Your task to perform on an android device: change keyboard looks Image 0: 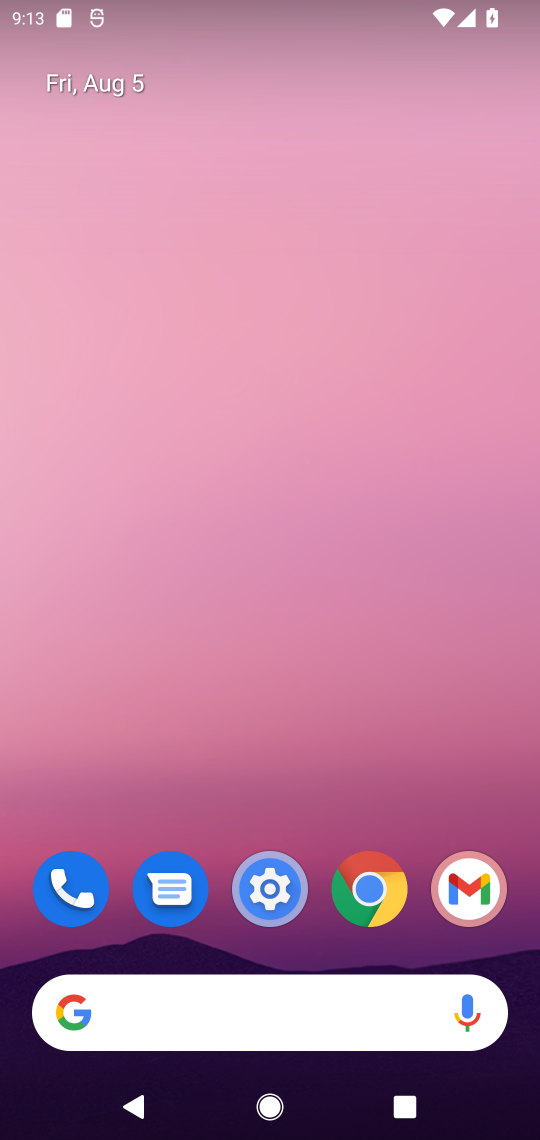
Step 0: drag from (285, 958) to (292, 414)
Your task to perform on an android device: change keyboard looks Image 1: 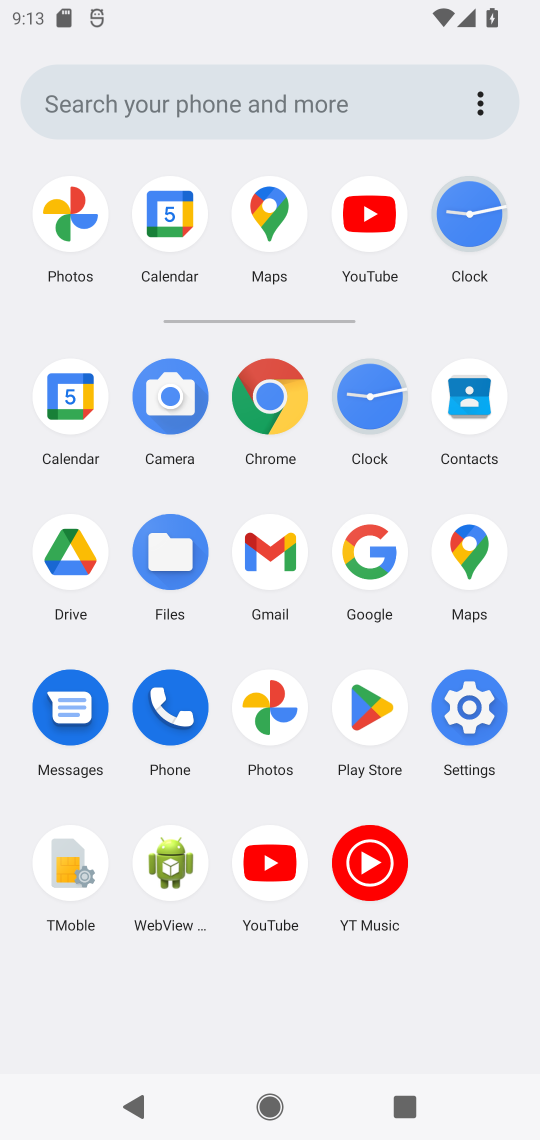
Step 1: click (482, 695)
Your task to perform on an android device: change keyboard looks Image 2: 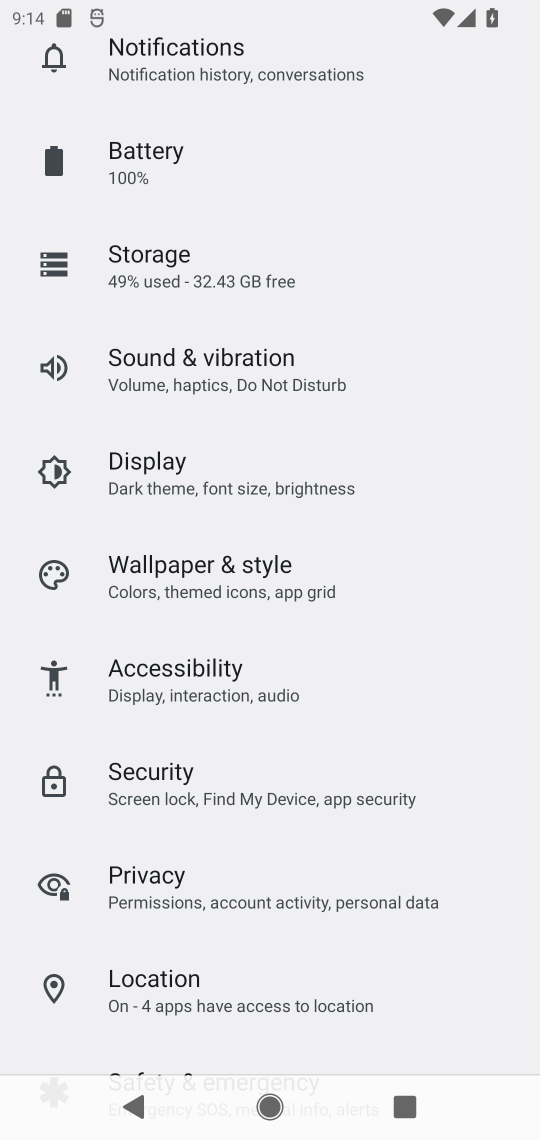
Step 2: click (197, 687)
Your task to perform on an android device: change keyboard looks Image 3: 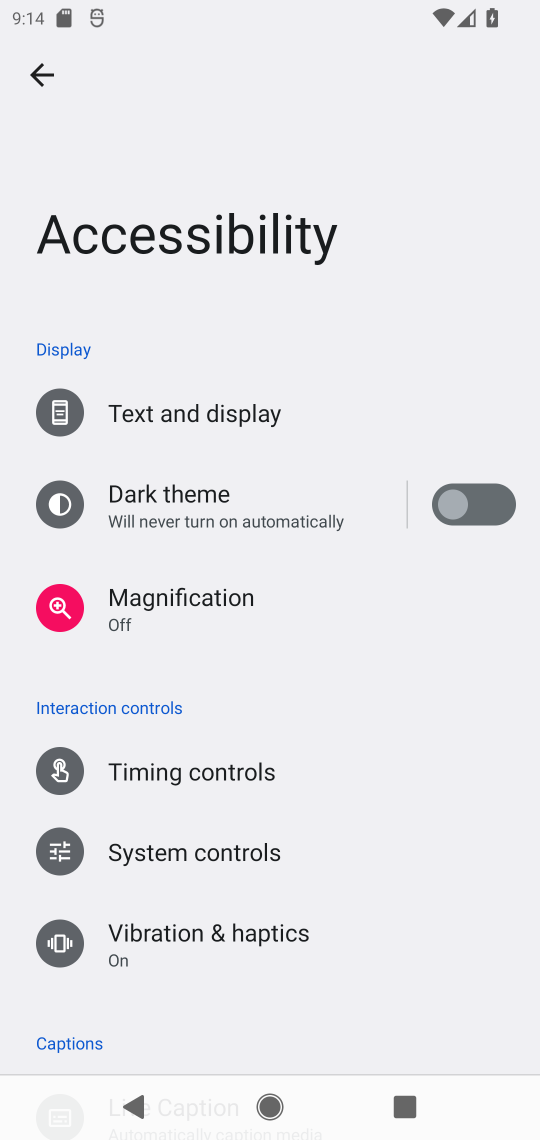
Step 3: click (47, 93)
Your task to perform on an android device: change keyboard looks Image 4: 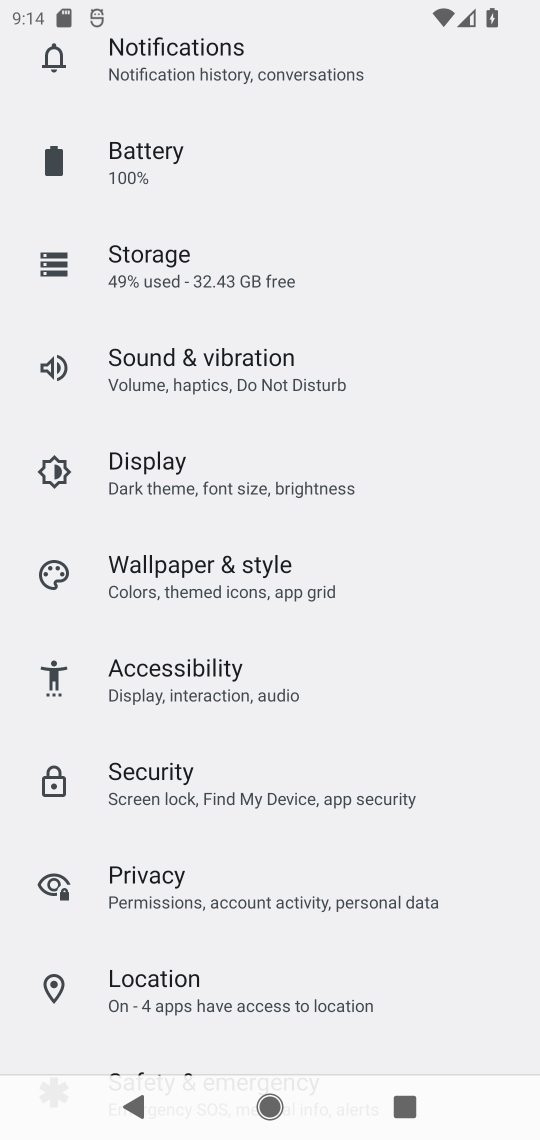
Step 4: drag from (192, 967) to (248, 583)
Your task to perform on an android device: change keyboard looks Image 5: 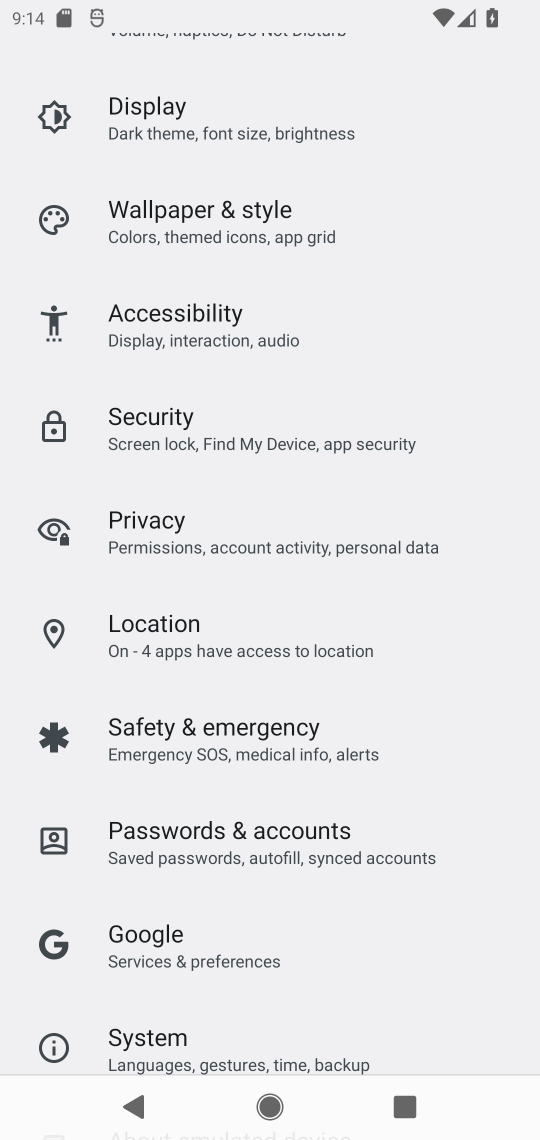
Step 5: click (220, 1049)
Your task to perform on an android device: change keyboard looks Image 6: 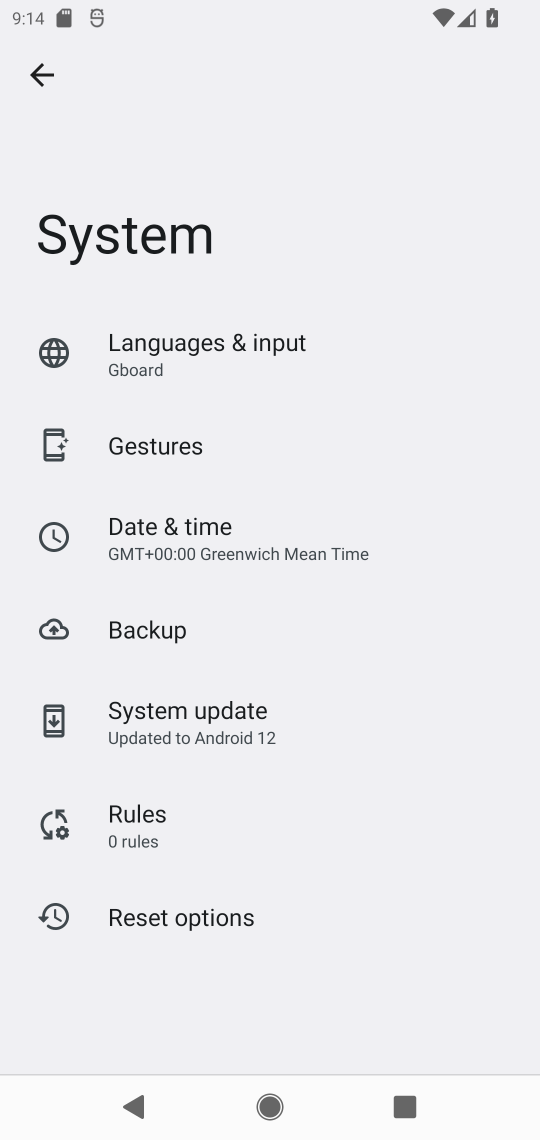
Step 6: click (180, 357)
Your task to perform on an android device: change keyboard looks Image 7: 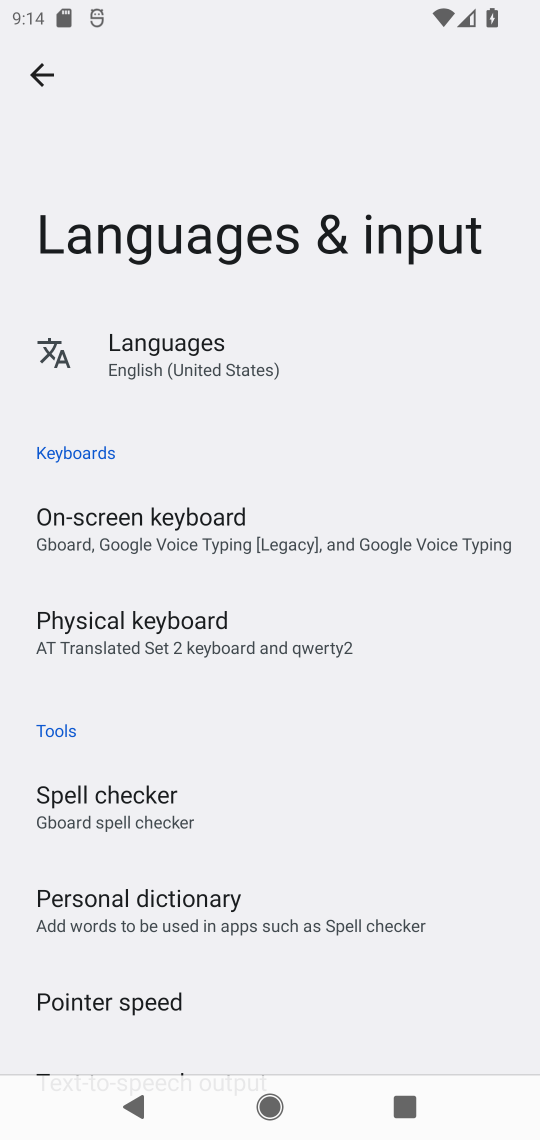
Step 7: click (163, 529)
Your task to perform on an android device: change keyboard looks Image 8: 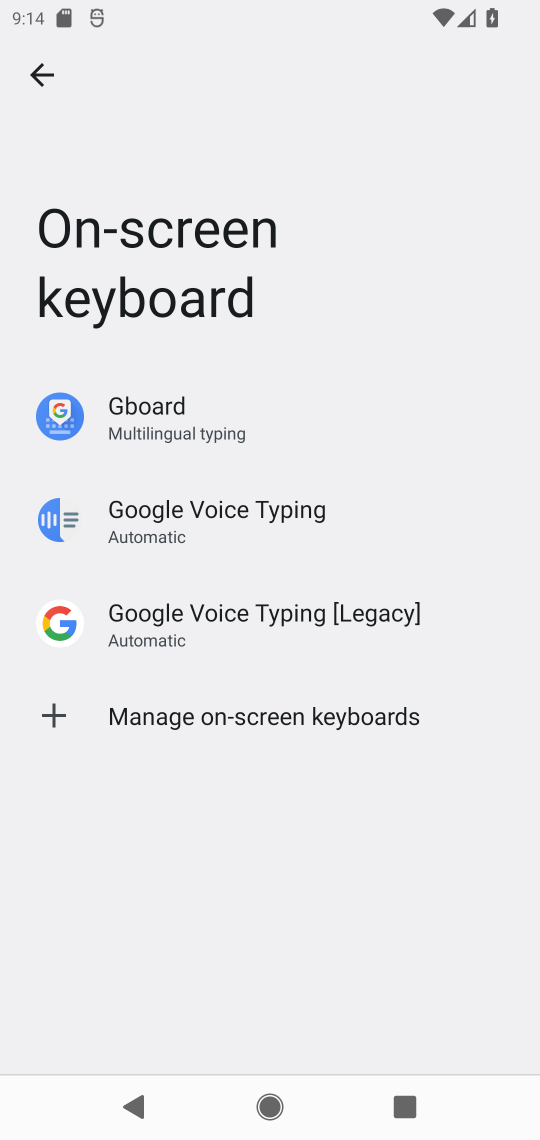
Step 8: click (154, 410)
Your task to perform on an android device: change keyboard looks Image 9: 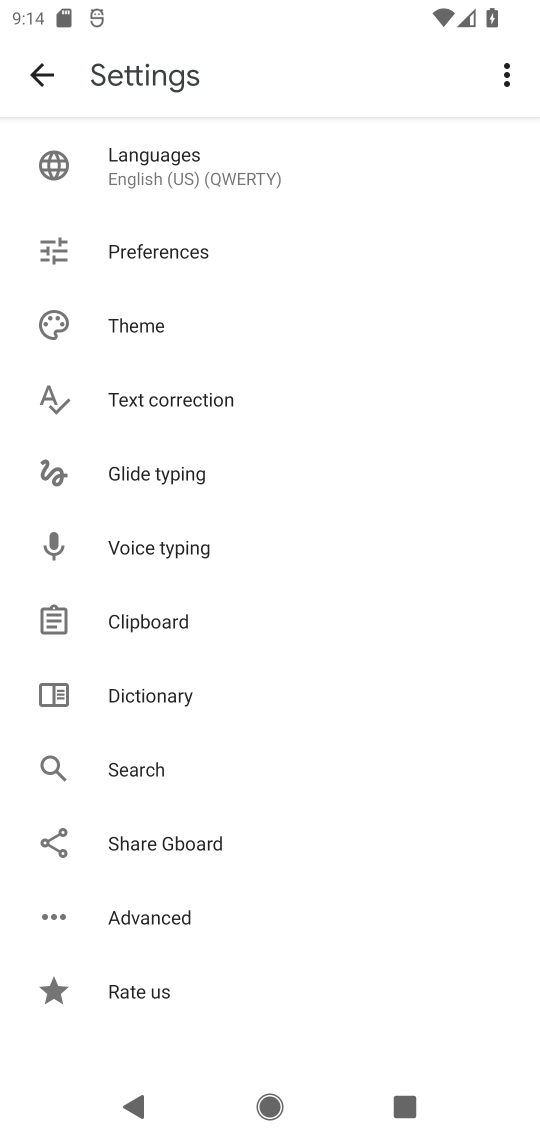
Step 9: click (150, 334)
Your task to perform on an android device: change keyboard looks Image 10: 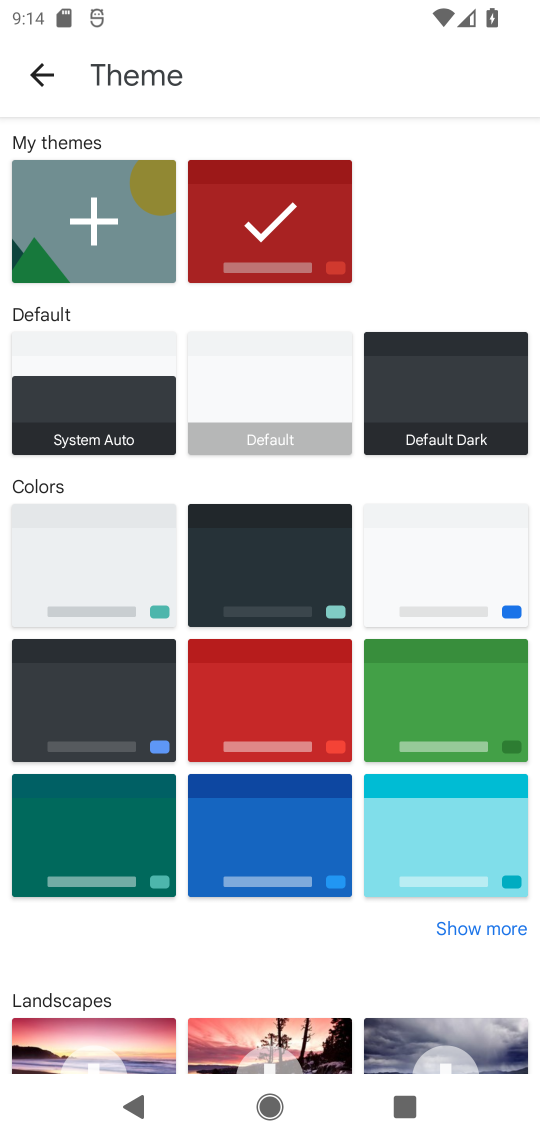
Step 10: click (253, 896)
Your task to perform on an android device: change keyboard looks Image 11: 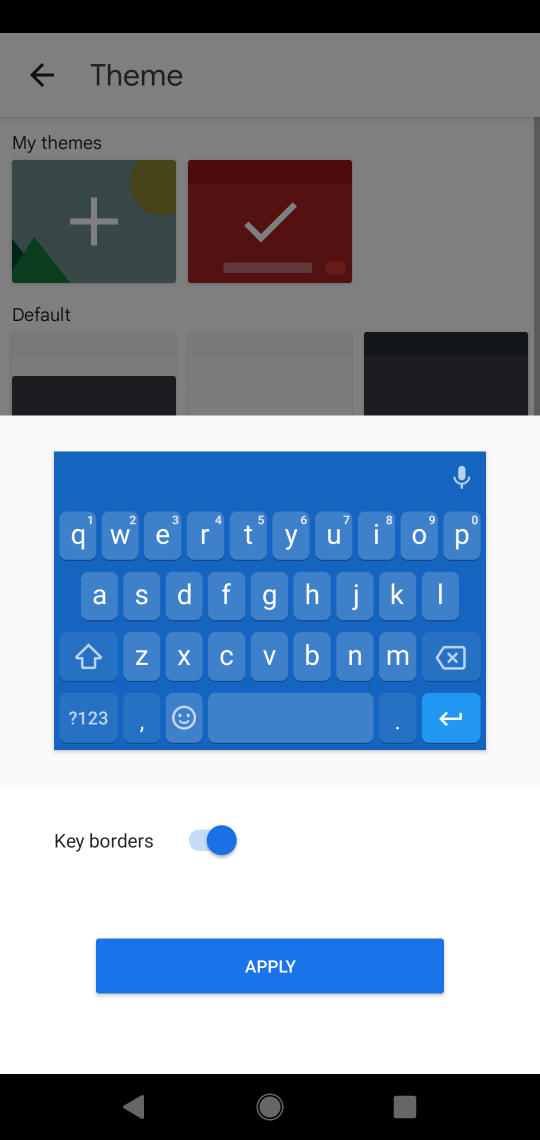
Step 11: click (294, 963)
Your task to perform on an android device: change keyboard looks Image 12: 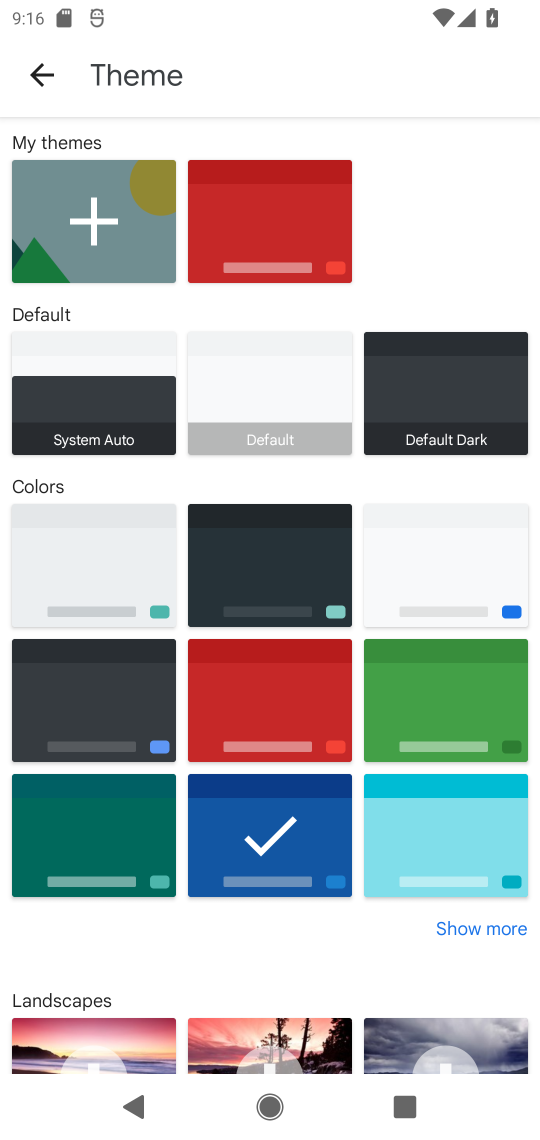
Step 12: task complete